Your task to perform on an android device: What's the weather going to be tomorrow? Image 0: 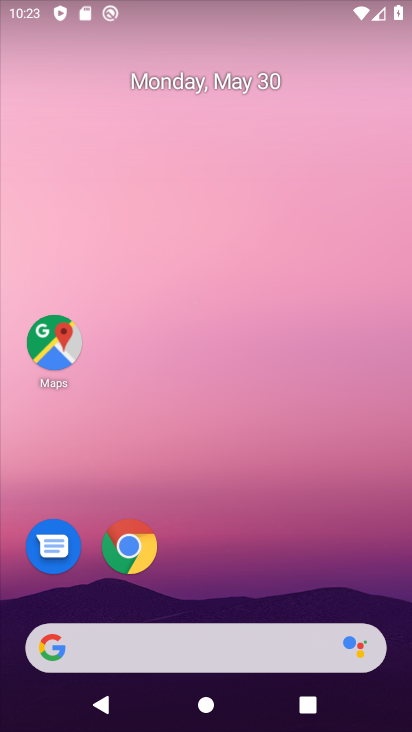
Step 0: press home button
Your task to perform on an android device: What's the weather going to be tomorrow? Image 1: 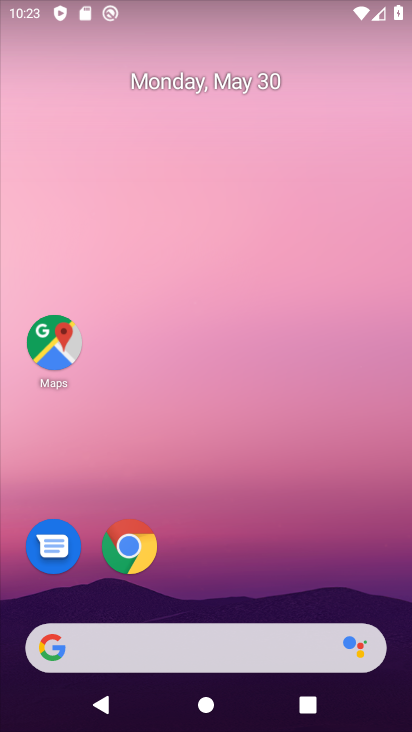
Step 1: drag from (11, 232) to (405, 238)
Your task to perform on an android device: What's the weather going to be tomorrow? Image 2: 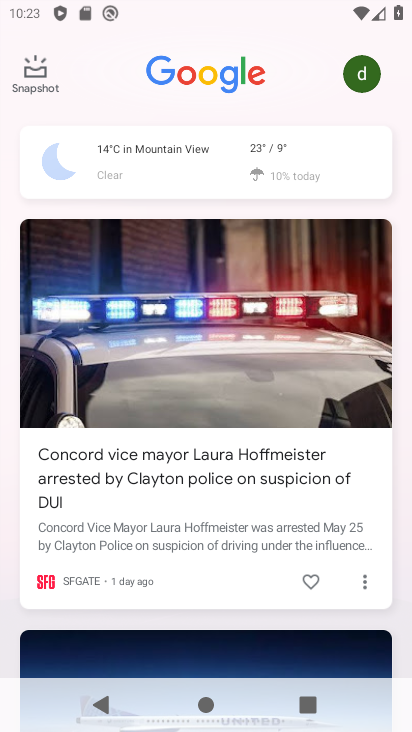
Step 2: click (260, 153)
Your task to perform on an android device: What's the weather going to be tomorrow? Image 3: 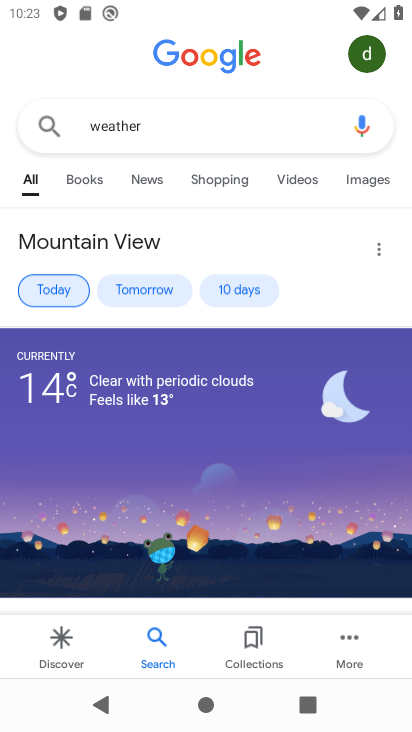
Step 3: drag from (204, 553) to (165, 168)
Your task to perform on an android device: What's the weather going to be tomorrow? Image 4: 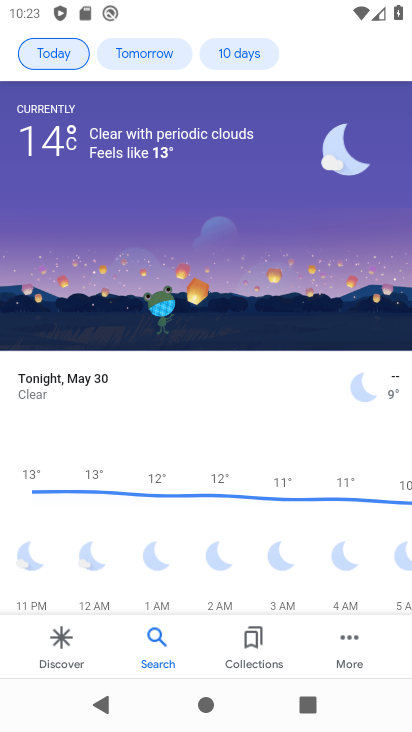
Step 4: click (143, 47)
Your task to perform on an android device: What's the weather going to be tomorrow? Image 5: 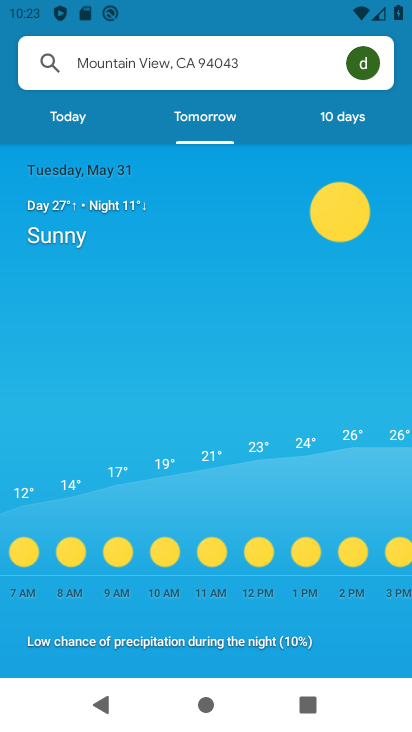
Step 5: drag from (398, 551) to (15, 549)
Your task to perform on an android device: What's the weather going to be tomorrow? Image 6: 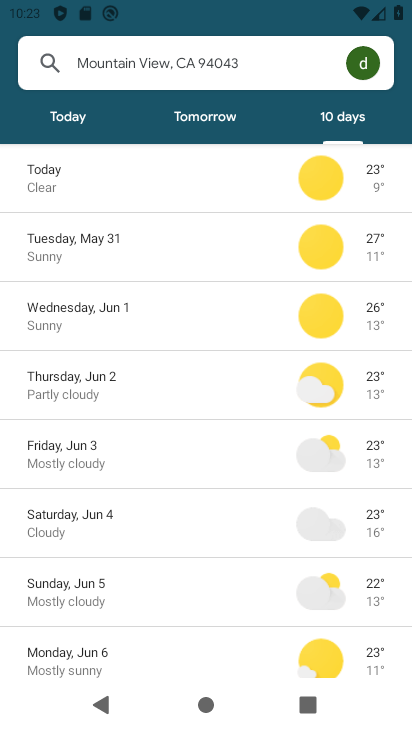
Step 6: click (193, 113)
Your task to perform on an android device: What's the weather going to be tomorrow? Image 7: 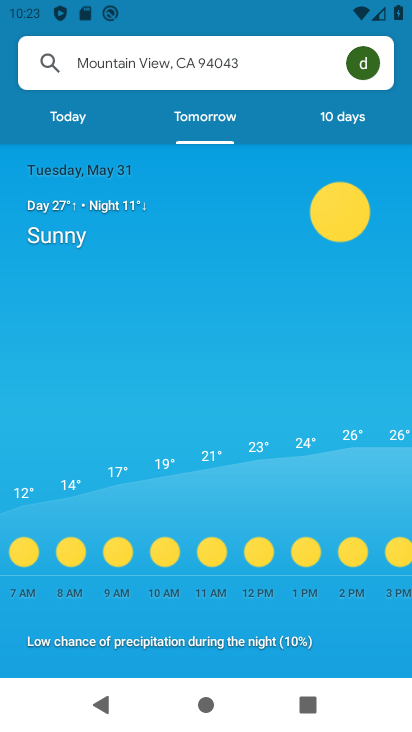
Step 7: task complete